Your task to perform on an android device: Go to Wikipedia Image 0: 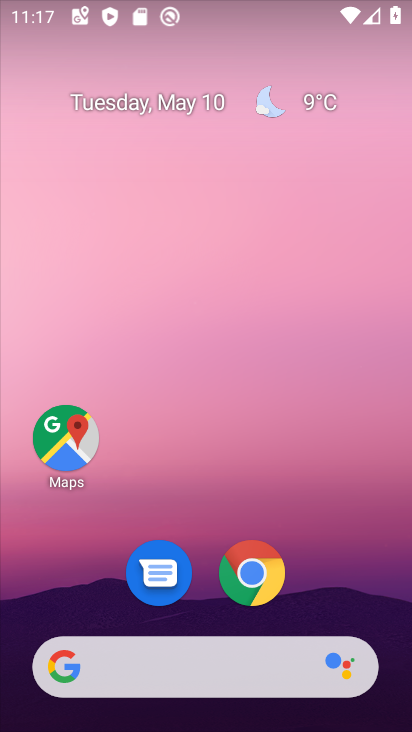
Step 0: click (251, 572)
Your task to perform on an android device: Go to Wikipedia Image 1: 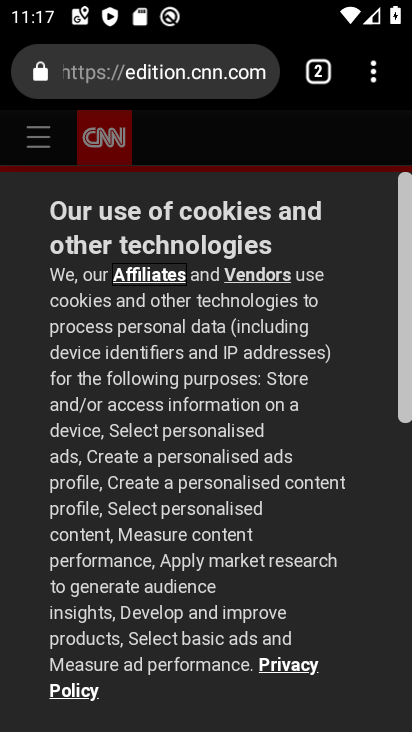
Step 1: click (377, 79)
Your task to perform on an android device: Go to Wikipedia Image 2: 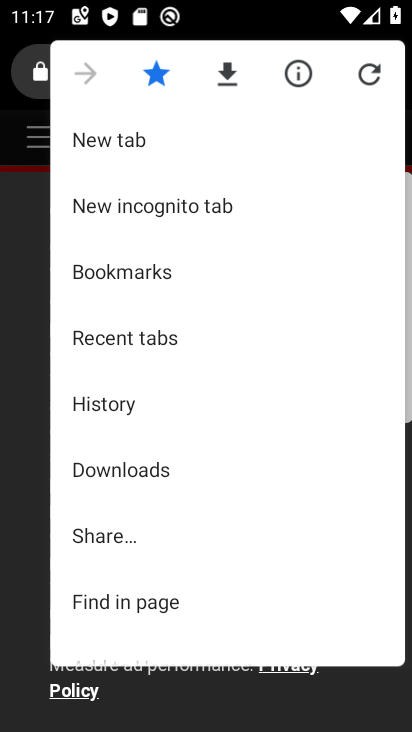
Step 2: click (115, 137)
Your task to perform on an android device: Go to Wikipedia Image 3: 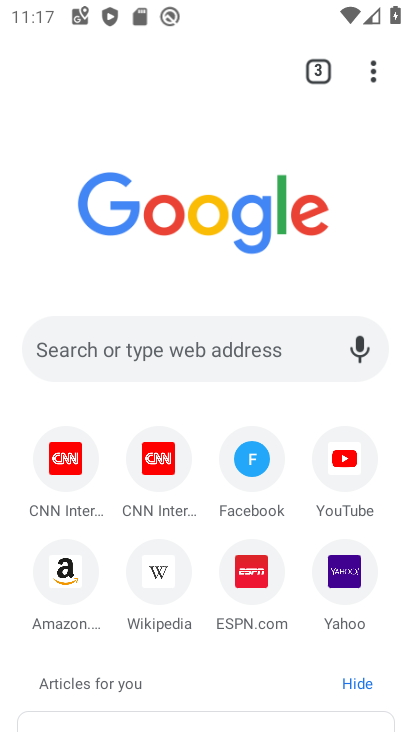
Step 3: click (193, 350)
Your task to perform on an android device: Go to Wikipedia Image 4: 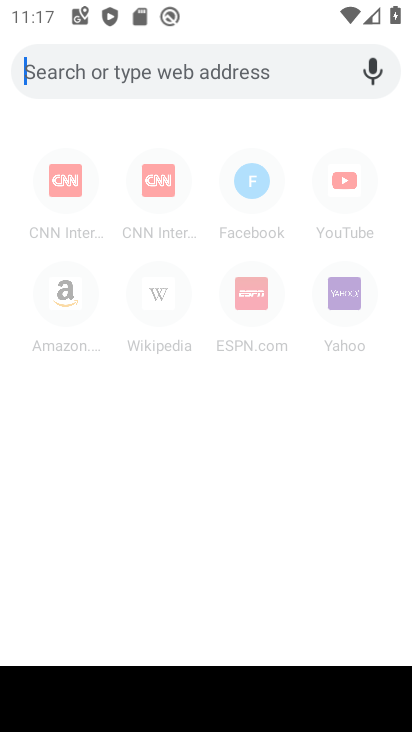
Step 4: type "Wikipedia"
Your task to perform on an android device: Go to Wikipedia Image 5: 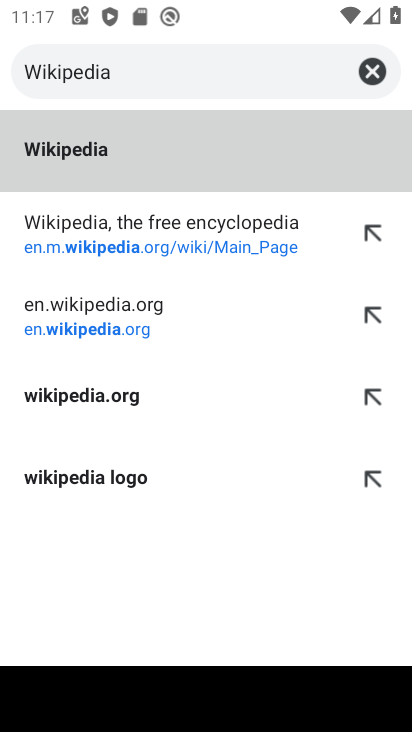
Step 5: click (93, 152)
Your task to perform on an android device: Go to Wikipedia Image 6: 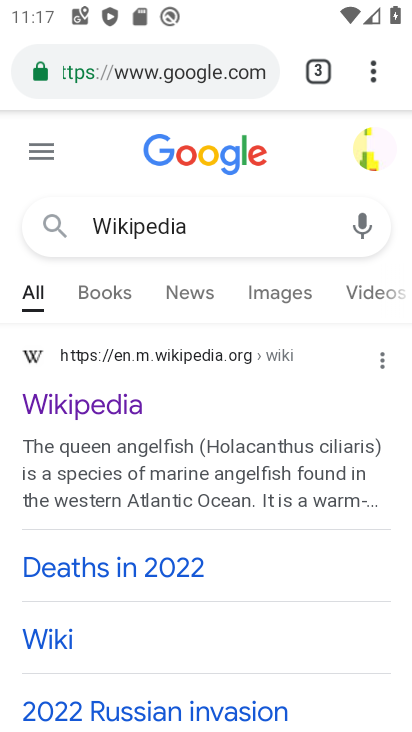
Step 6: click (74, 406)
Your task to perform on an android device: Go to Wikipedia Image 7: 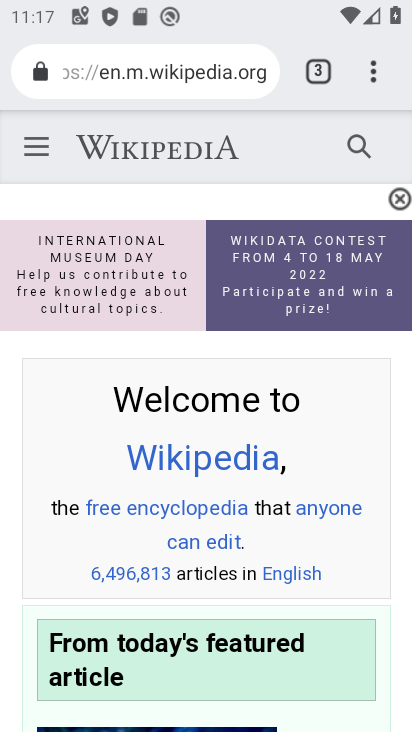
Step 7: task complete